Your task to perform on an android device: delete the emails in spam in the gmail app Image 0: 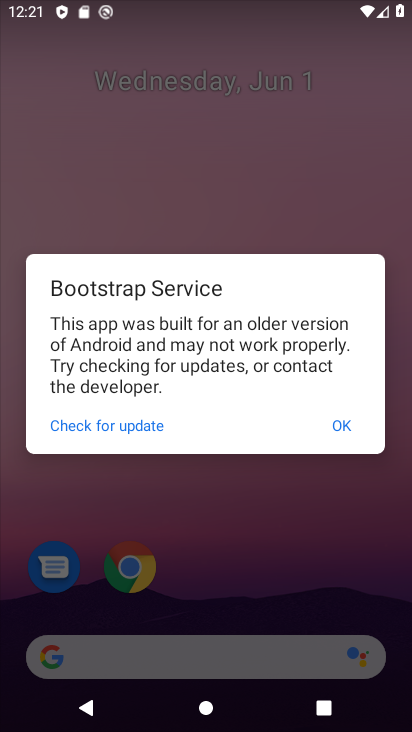
Step 0: click (345, 426)
Your task to perform on an android device: delete the emails in spam in the gmail app Image 1: 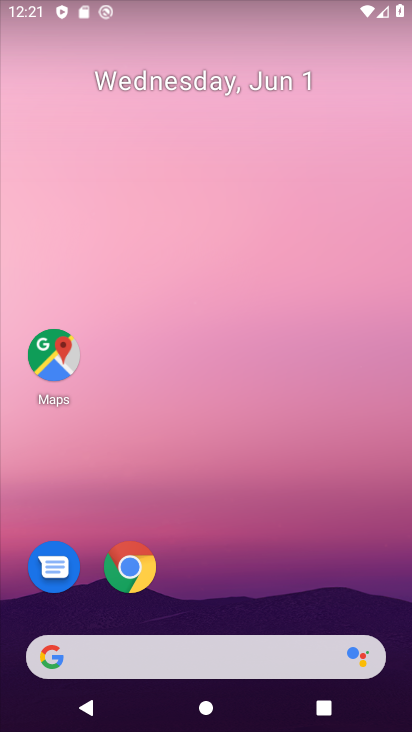
Step 1: drag from (217, 562) to (231, 48)
Your task to perform on an android device: delete the emails in spam in the gmail app Image 2: 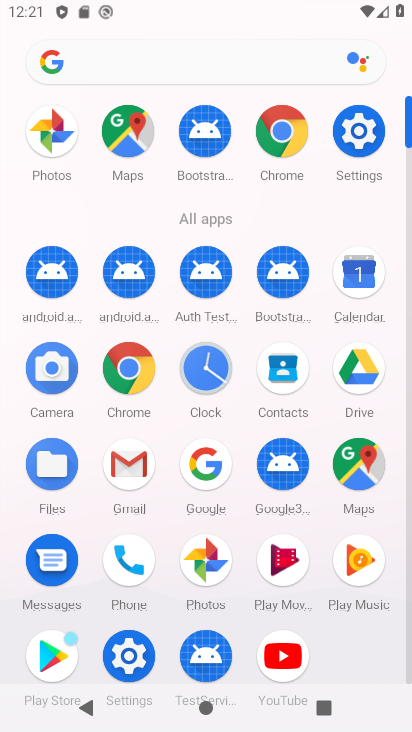
Step 2: click (135, 463)
Your task to perform on an android device: delete the emails in spam in the gmail app Image 3: 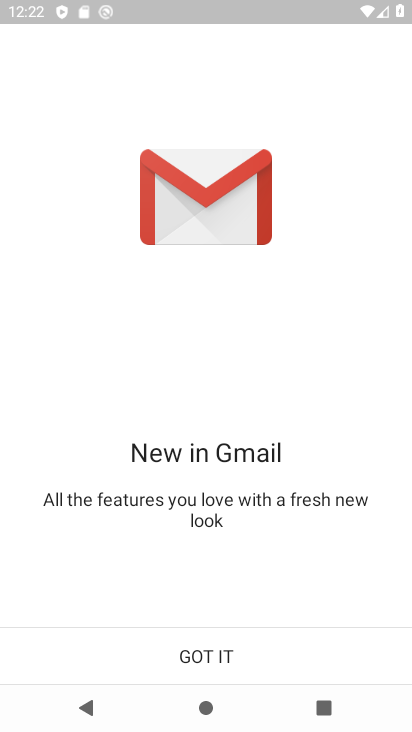
Step 3: click (210, 665)
Your task to perform on an android device: delete the emails in spam in the gmail app Image 4: 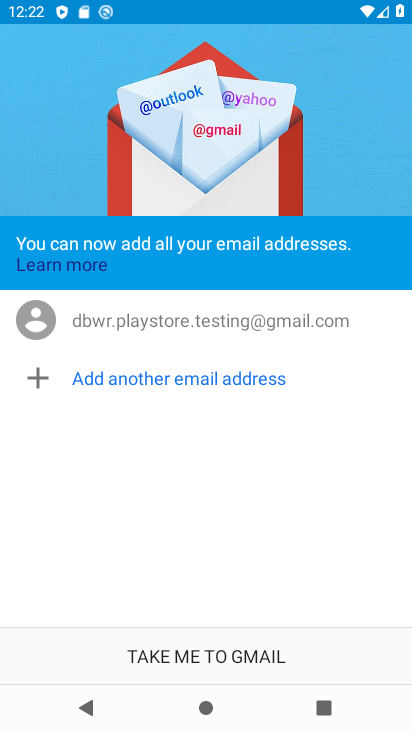
Step 4: click (210, 654)
Your task to perform on an android device: delete the emails in spam in the gmail app Image 5: 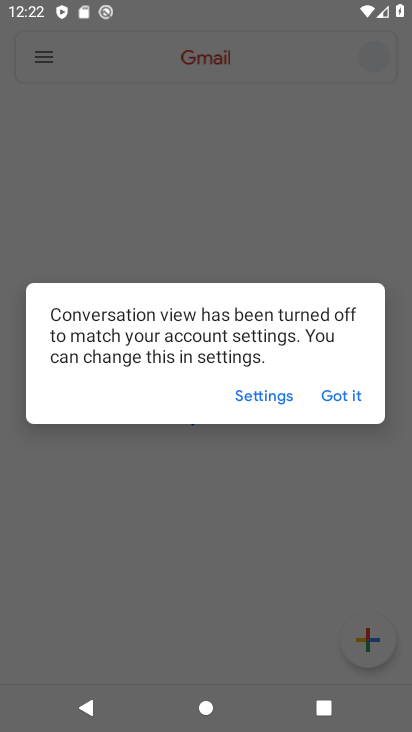
Step 5: drag from (287, 392) to (363, 296)
Your task to perform on an android device: delete the emails in spam in the gmail app Image 6: 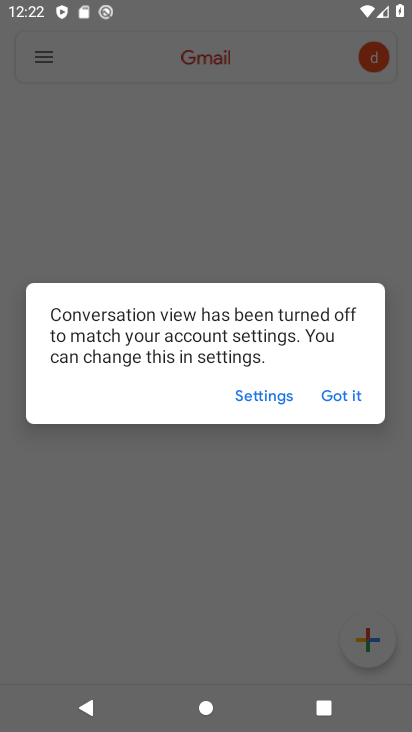
Step 6: click (342, 385)
Your task to perform on an android device: delete the emails in spam in the gmail app Image 7: 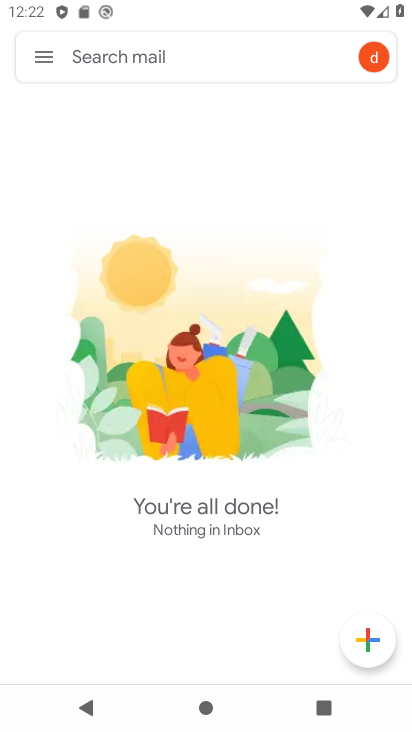
Step 7: click (40, 54)
Your task to perform on an android device: delete the emails in spam in the gmail app Image 8: 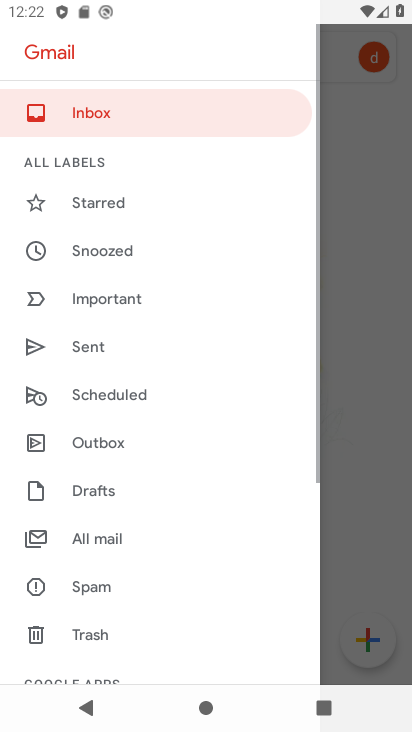
Step 8: drag from (157, 606) to (176, 110)
Your task to perform on an android device: delete the emails in spam in the gmail app Image 9: 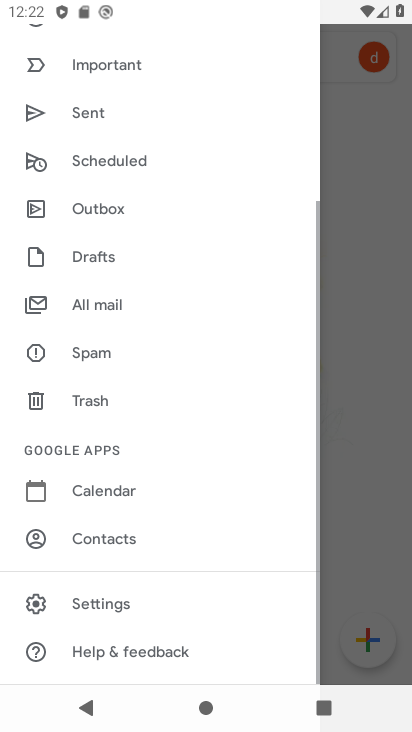
Step 9: click (94, 611)
Your task to perform on an android device: delete the emails in spam in the gmail app Image 10: 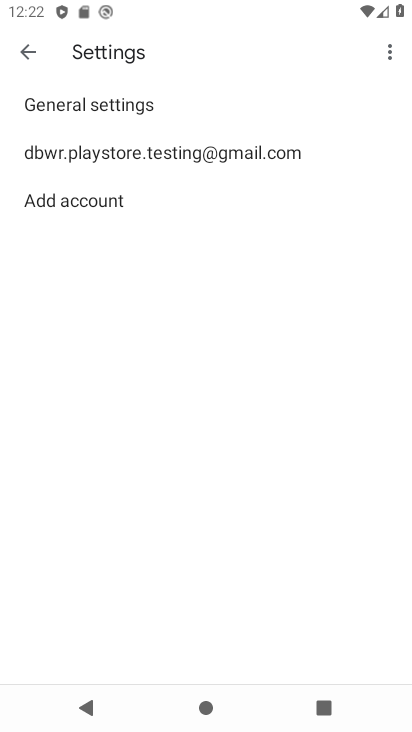
Step 10: task complete